Your task to perform on an android device: Open Google Maps and go to "Timeline" Image 0: 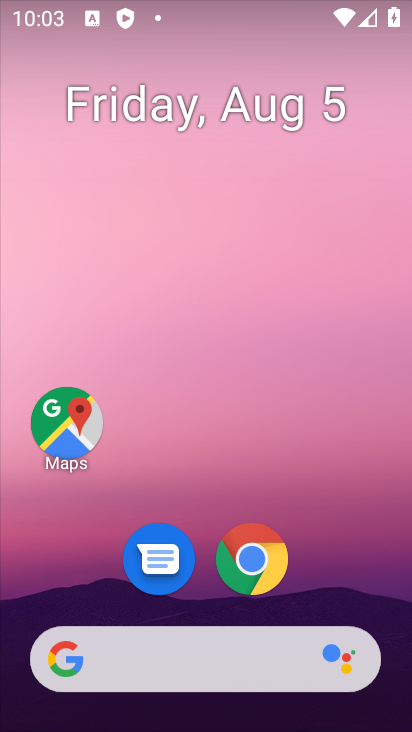
Step 0: click (76, 429)
Your task to perform on an android device: Open Google Maps and go to "Timeline" Image 1: 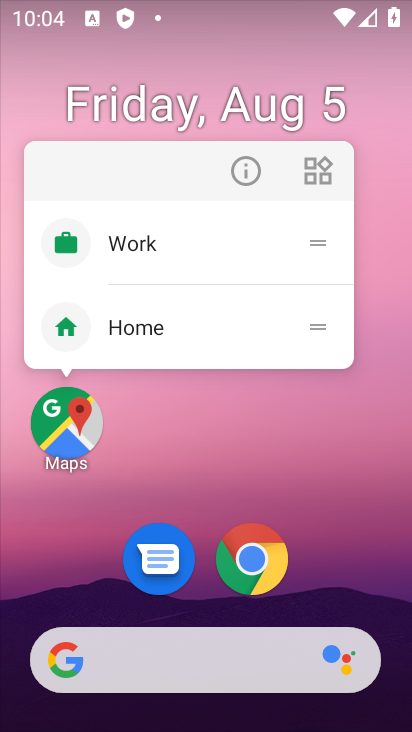
Step 1: click (73, 446)
Your task to perform on an android device: Open Google Maps and go to "Timeline" Image 2: 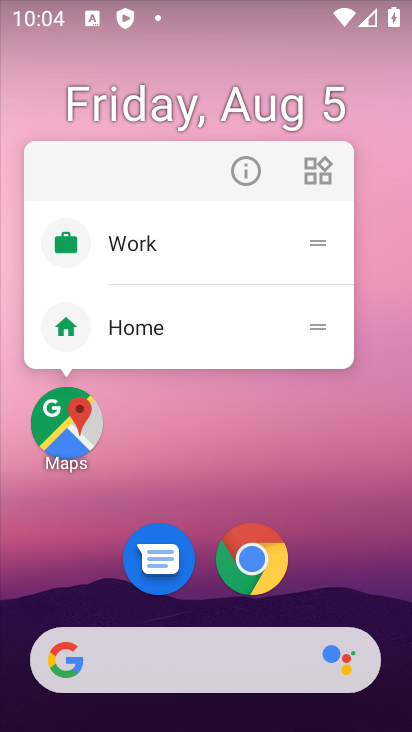
Step 2: click (48, 425)
Your task to perform on an android device: Open Google Maps and go to "Timeline" Image 3: 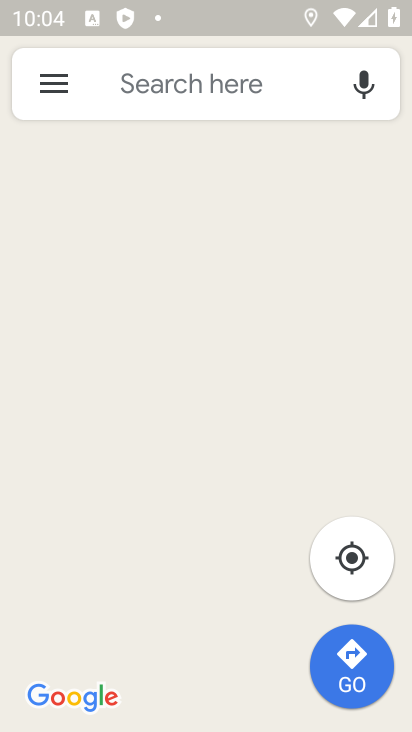
Step 3: click (46, 91)
Your task to perform on an android device: Open Google Maps and go to "Timeline" Image 4: 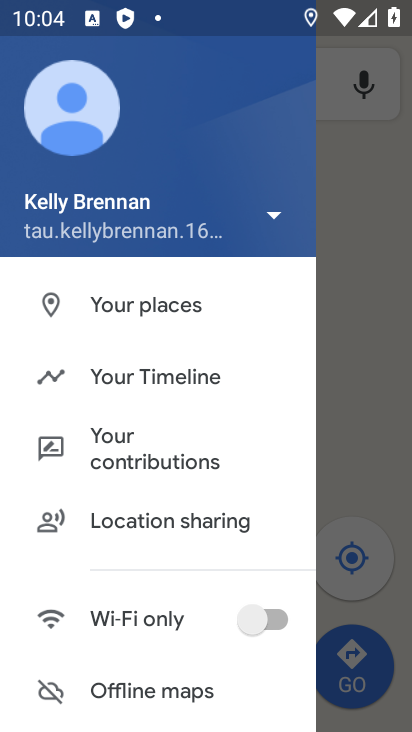
Step 4: click (184, 388)
Your task to perform on an android device: Open Google Maps and go to "Timeline" Image 5: 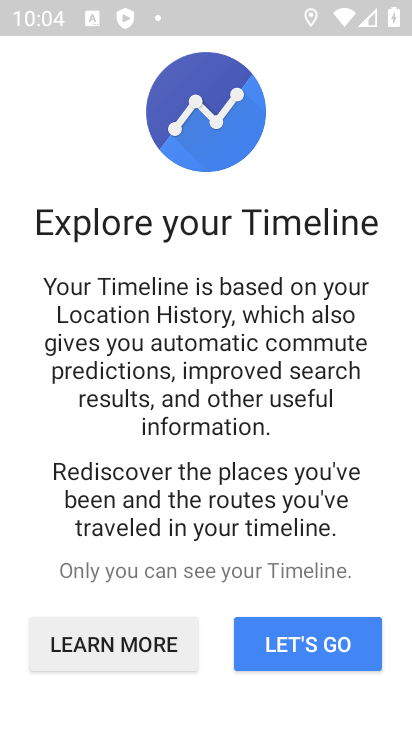
Step 5: click (311, 656)
Your task to perform on an android device: Open Google Maps and go to "Timeline" Image 6: 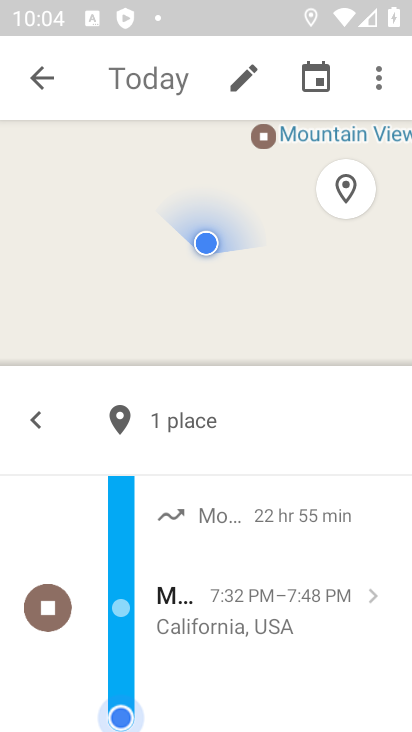
Step 6: task complete